Your task to perform on an android device: open app "Google Play services" (install if not already installed) Image 0: 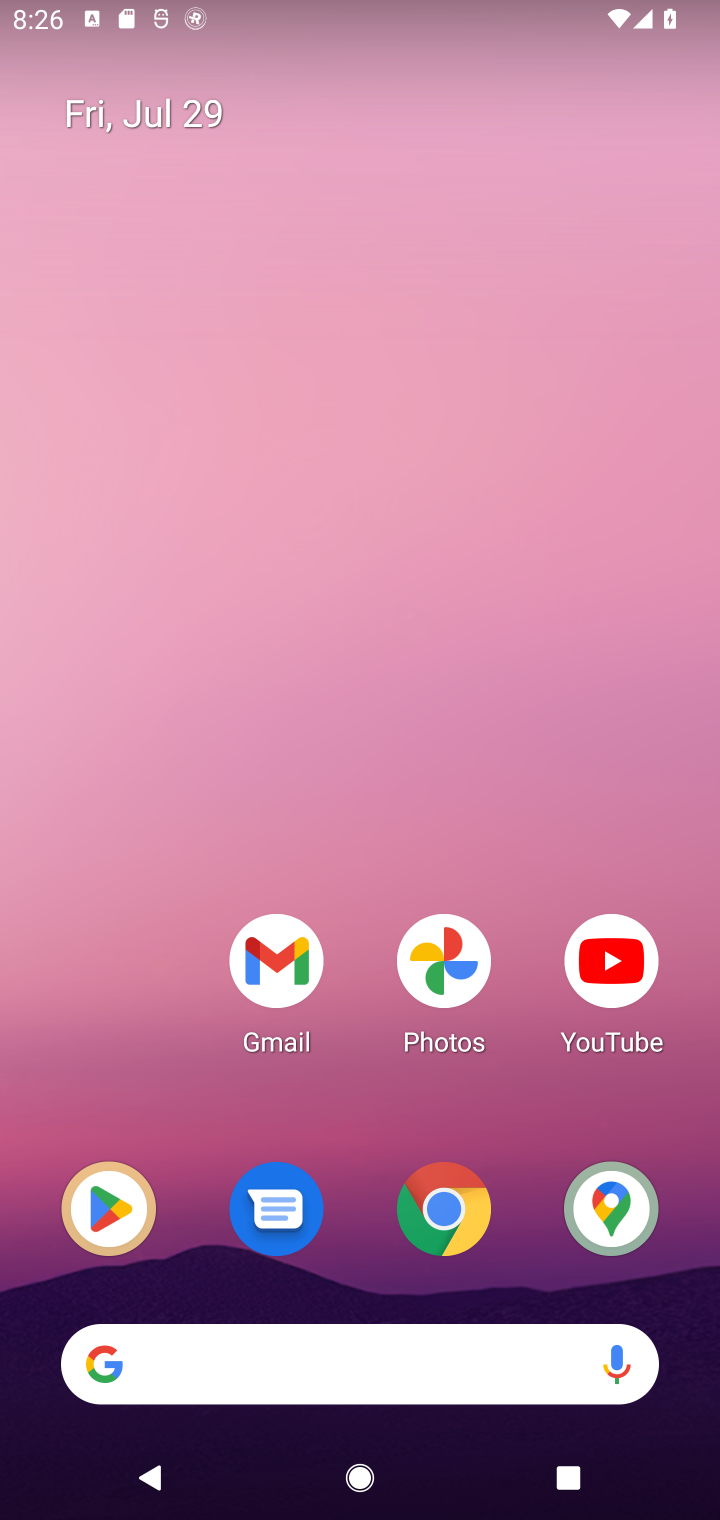
Step 0: click (97, 1256)
Your task to perform on an android device: open app "Google Play services" (install if not already installed) Image 1: 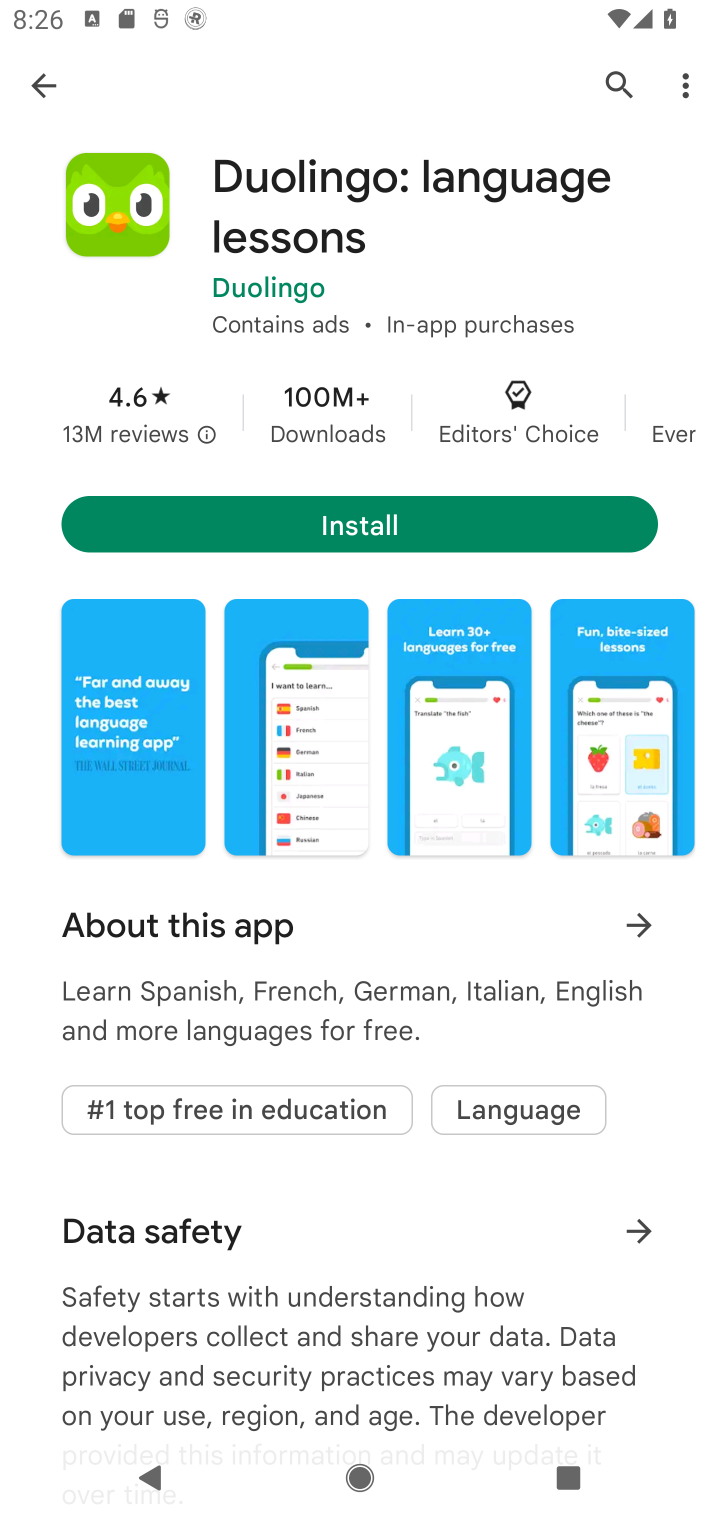
Step 1: click (622, 93)
Your task to perform on an android device: open app "Google Play services" (install if not already installed) Image 2: 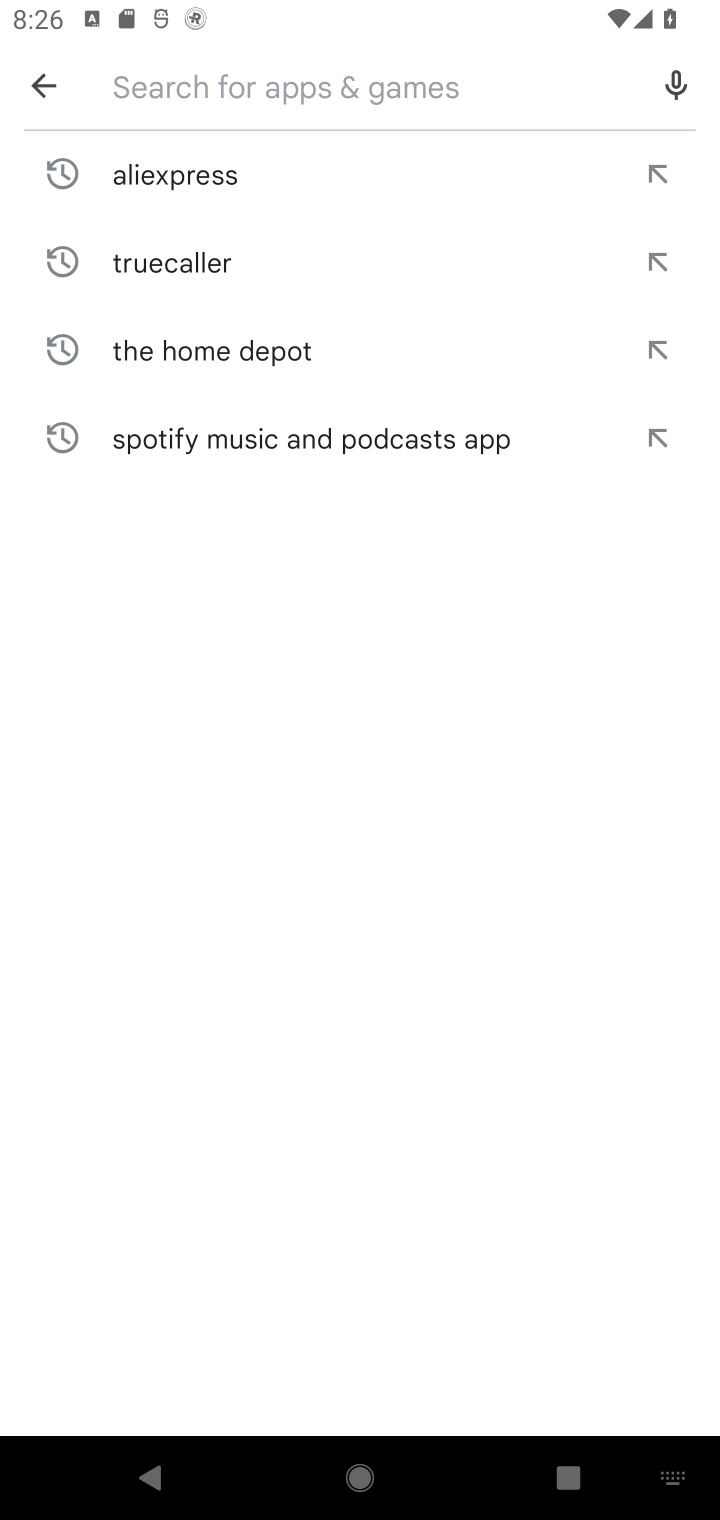
Step 2: click (369, 102)
Your task to perform on an android device: open app "Google Play services" (install if not already installed) Image 3: 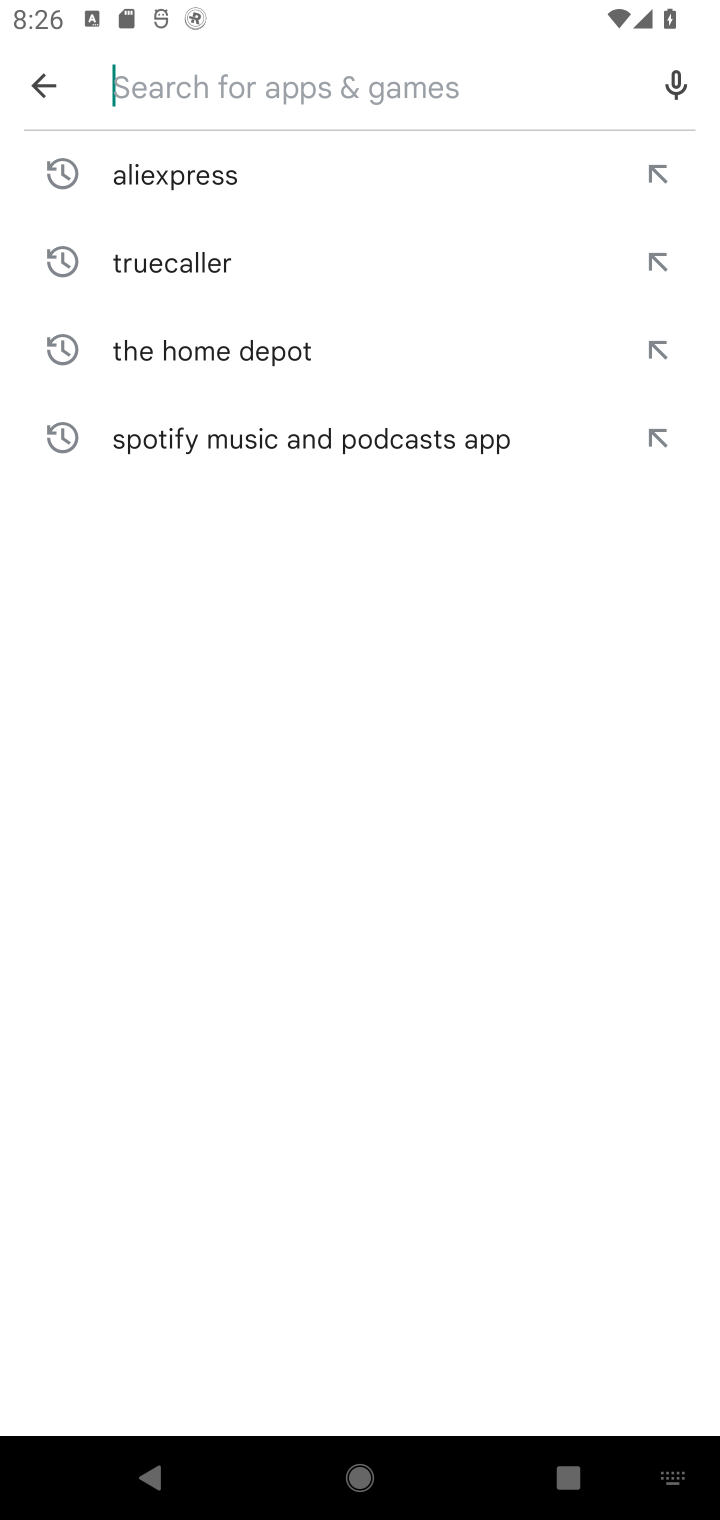
Step 3: type "Google Play services"
Your task to perform on an android device: open app "Google Play services" (install if not already installed) Image 4: 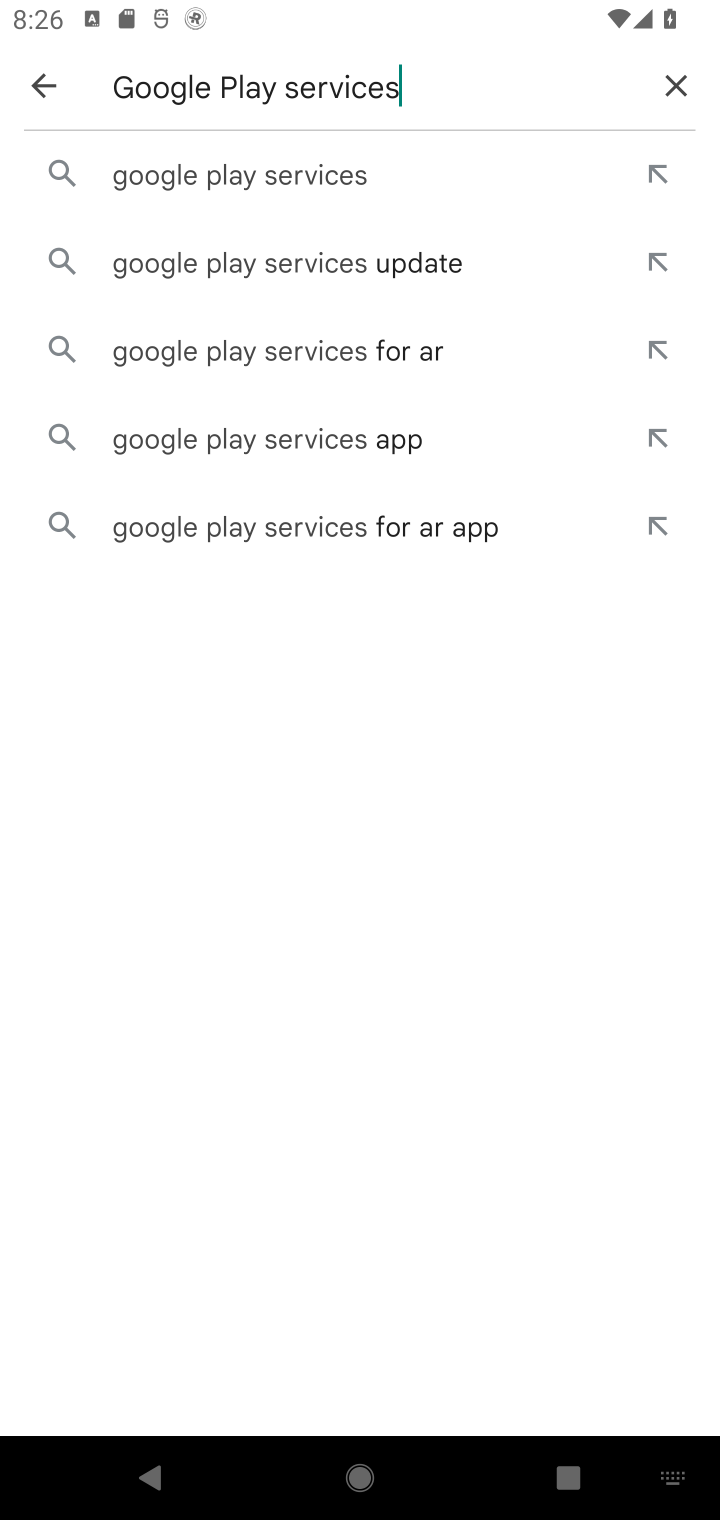
Step 4: click (218, 189)
Your task to perform on an android device: open app "Google Play services" (install if not already installed) Image 5: 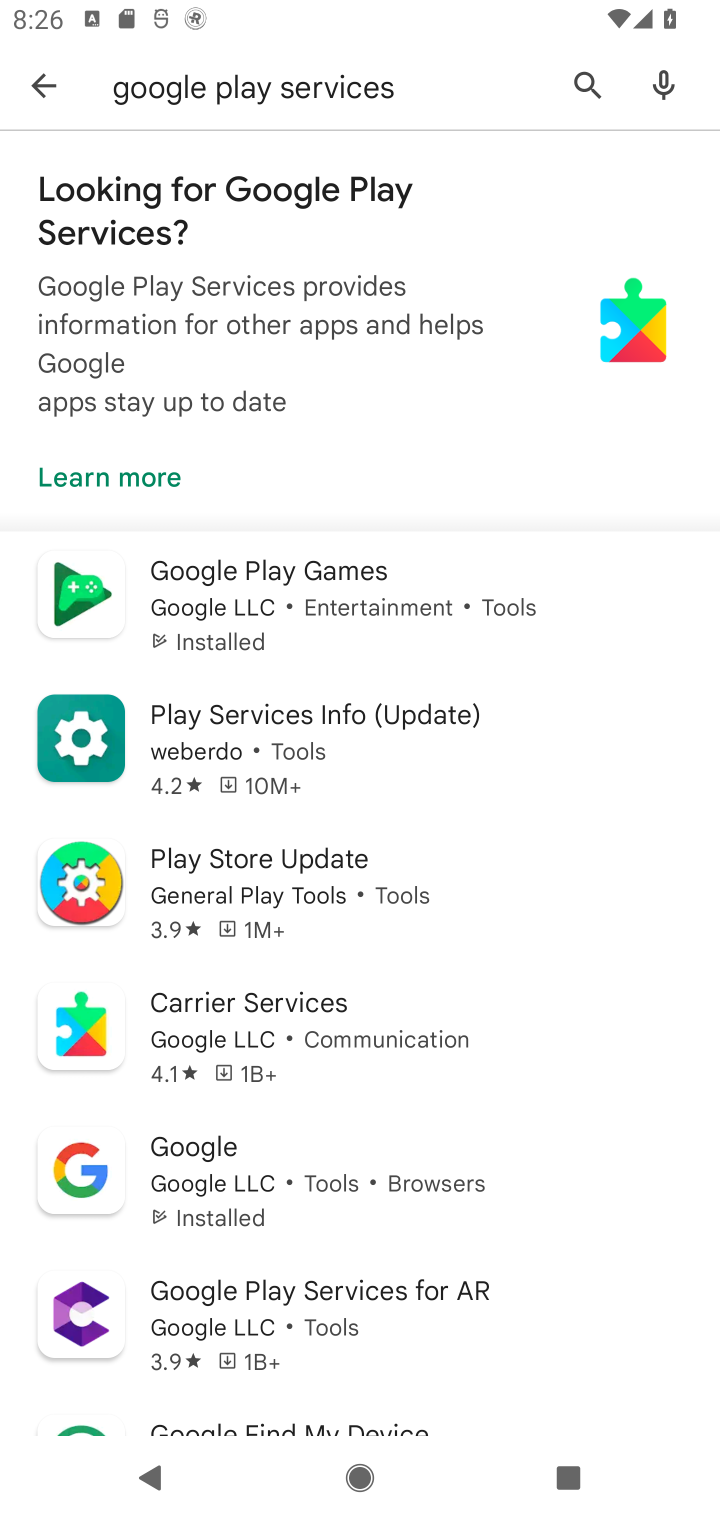
Step 5: click (254, 1311)
Your task to perform on an android device: open app "Google Play services" (install if not already installed) Image 6: 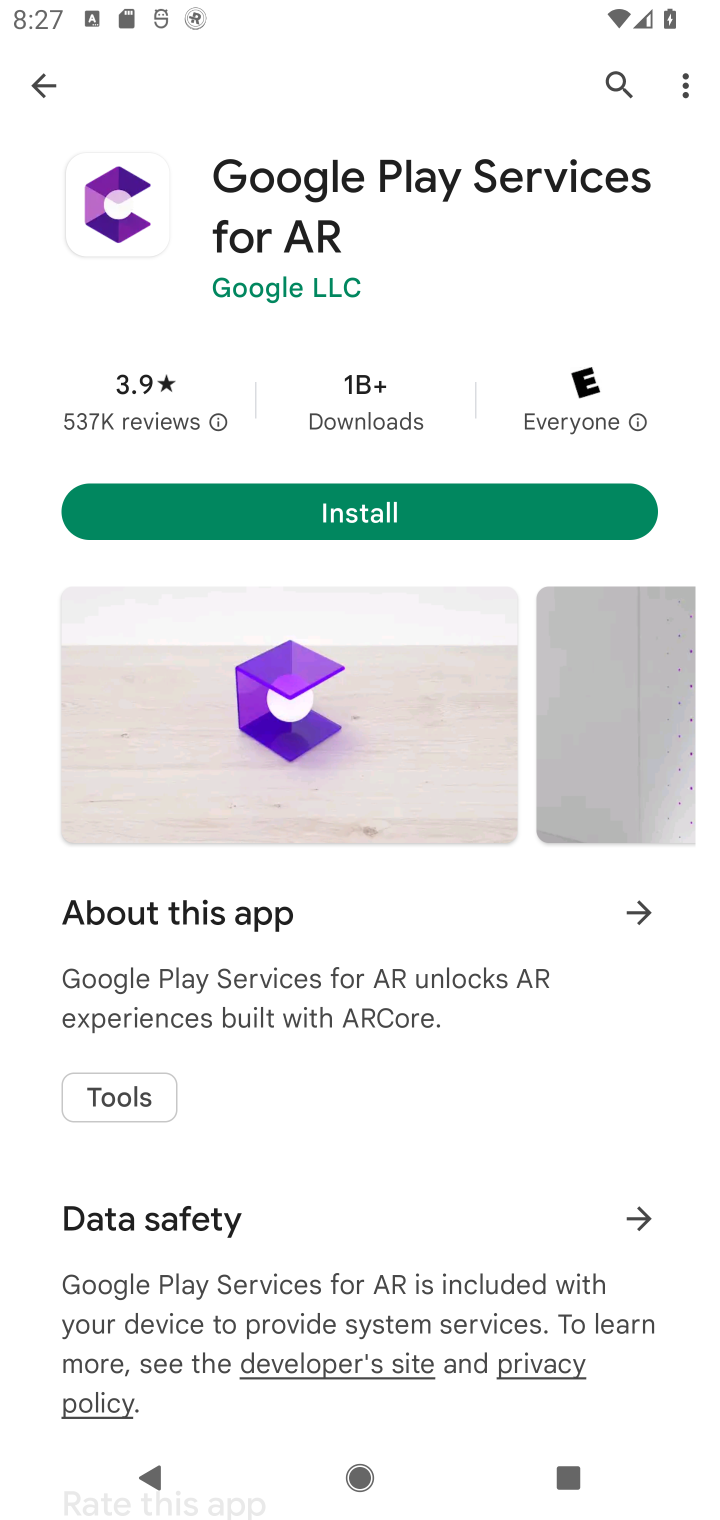
Step 6: click (326, 535)
Your task to perform on an android device: open app "Google Play services" (install if not already installed) Image 7: 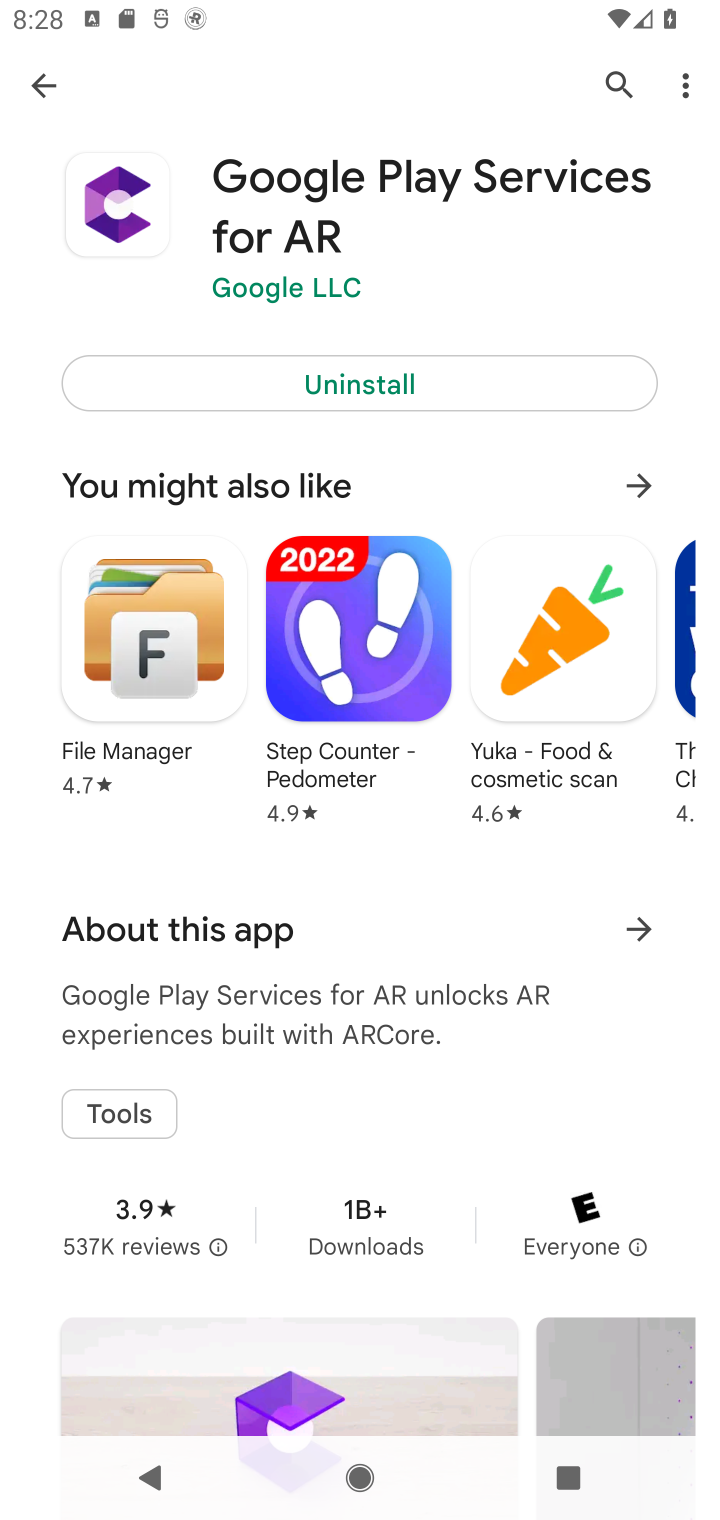
Step 7: click (129, 232)
Your task to perform on an android device: open app "Google Play services" (install if not already installed) Image 8: 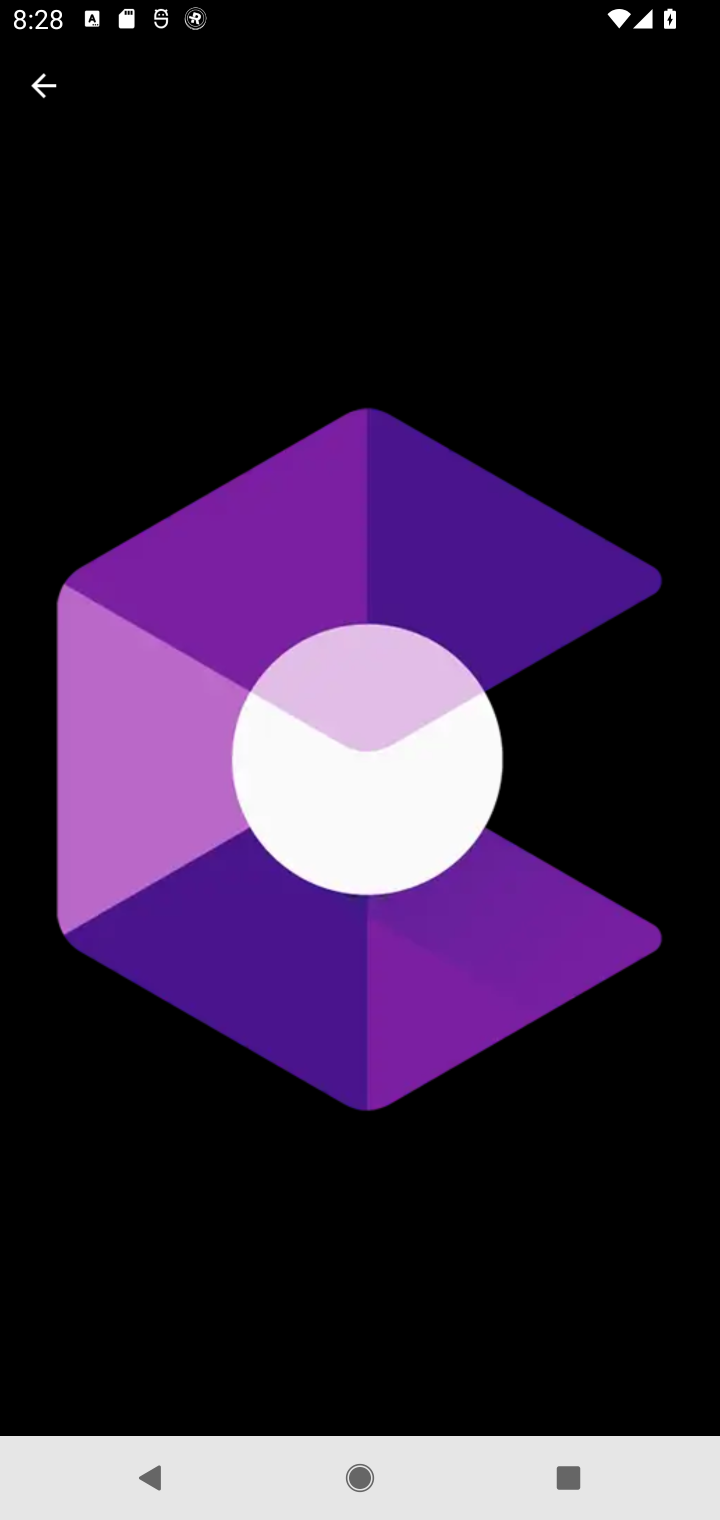
Step 8: click (46, 104)
Your task to perform on an android device: open app "Google Play services" (install if not already installed) Image 9: 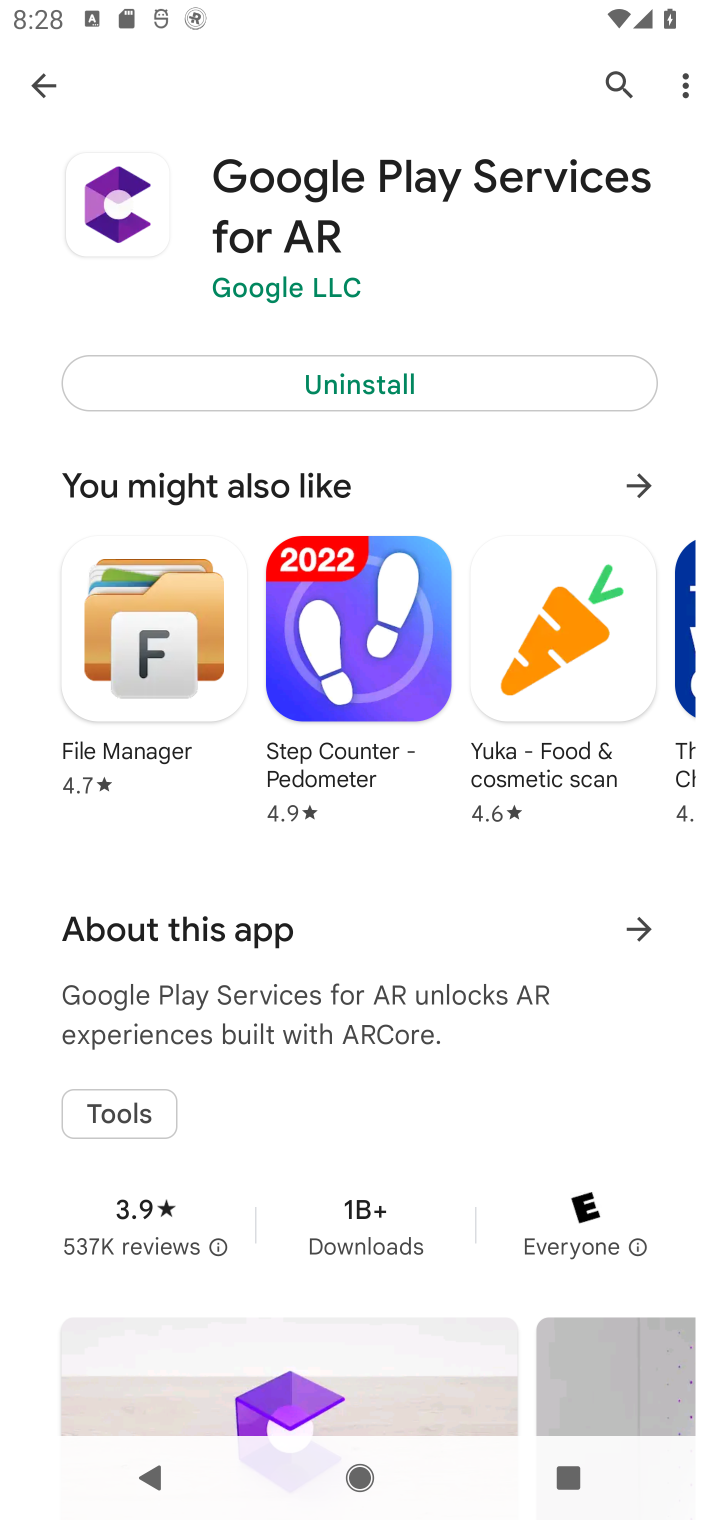
Step 9: click (307, 205)
Your task to perform on an android device: open app "Google Play services" (install if not already installed) Image 10: 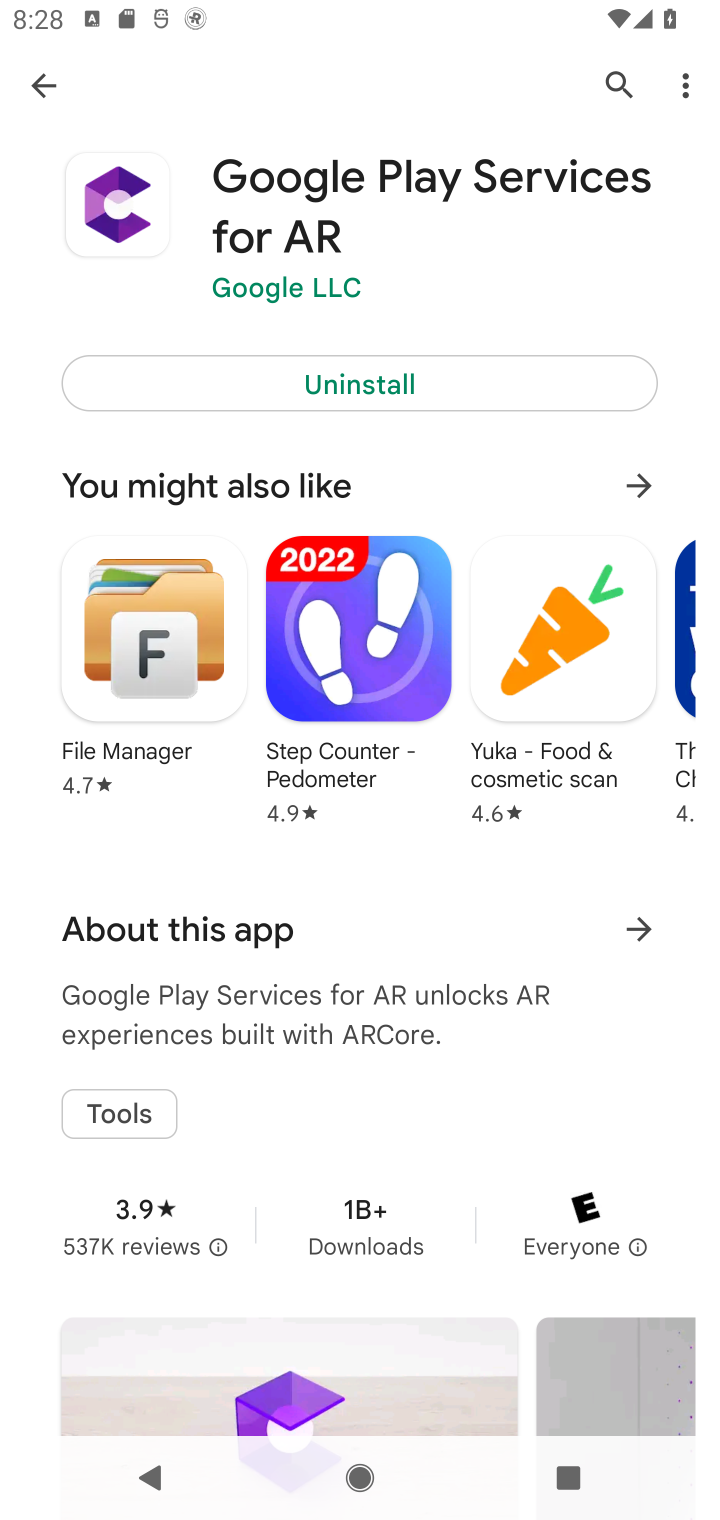
Step 10: click (350, 189)
Your task to perform on an android device: open app "Google Play services" (install if not already installed) Image 11: 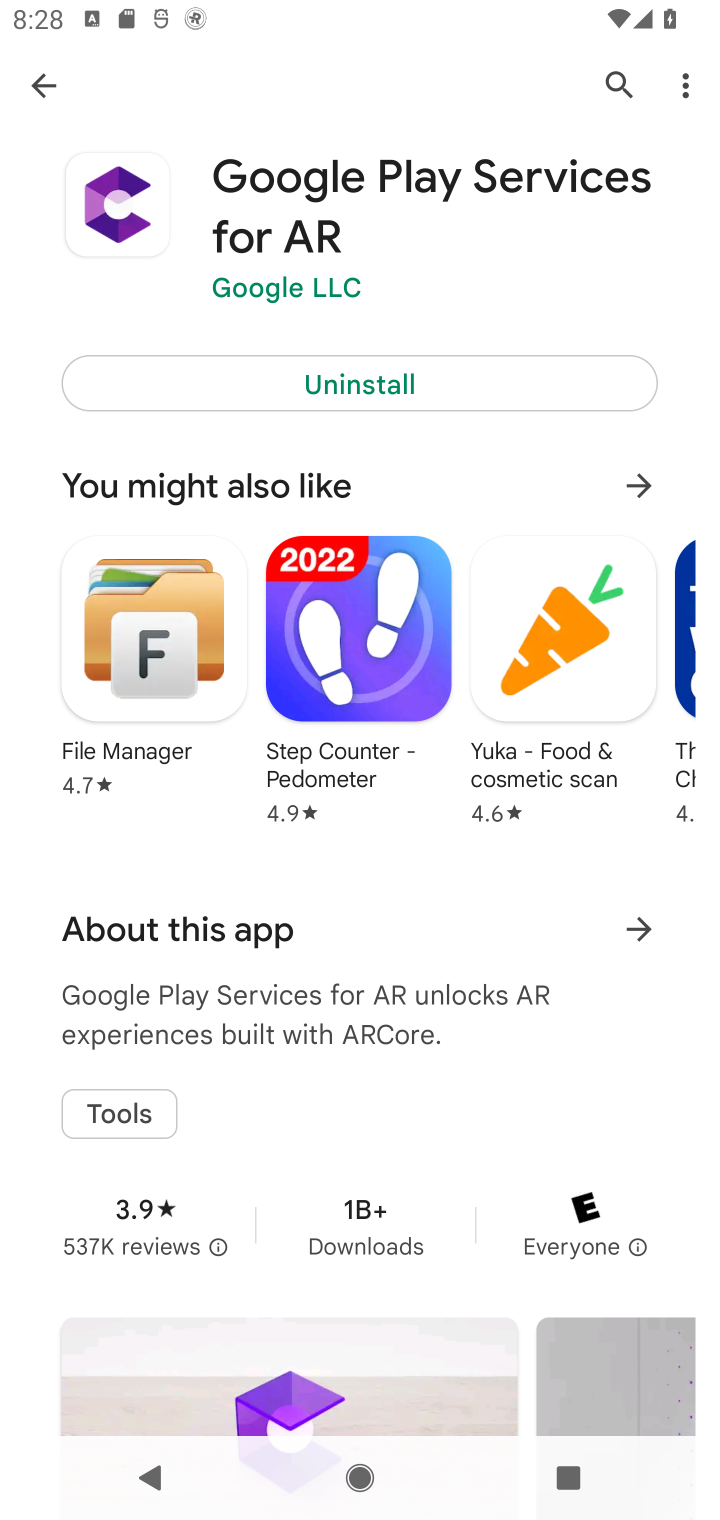
Step 11: click (316, 237)
Your task to perform on an android device: open app "Google Play services" (install if not already installed) Image 12: 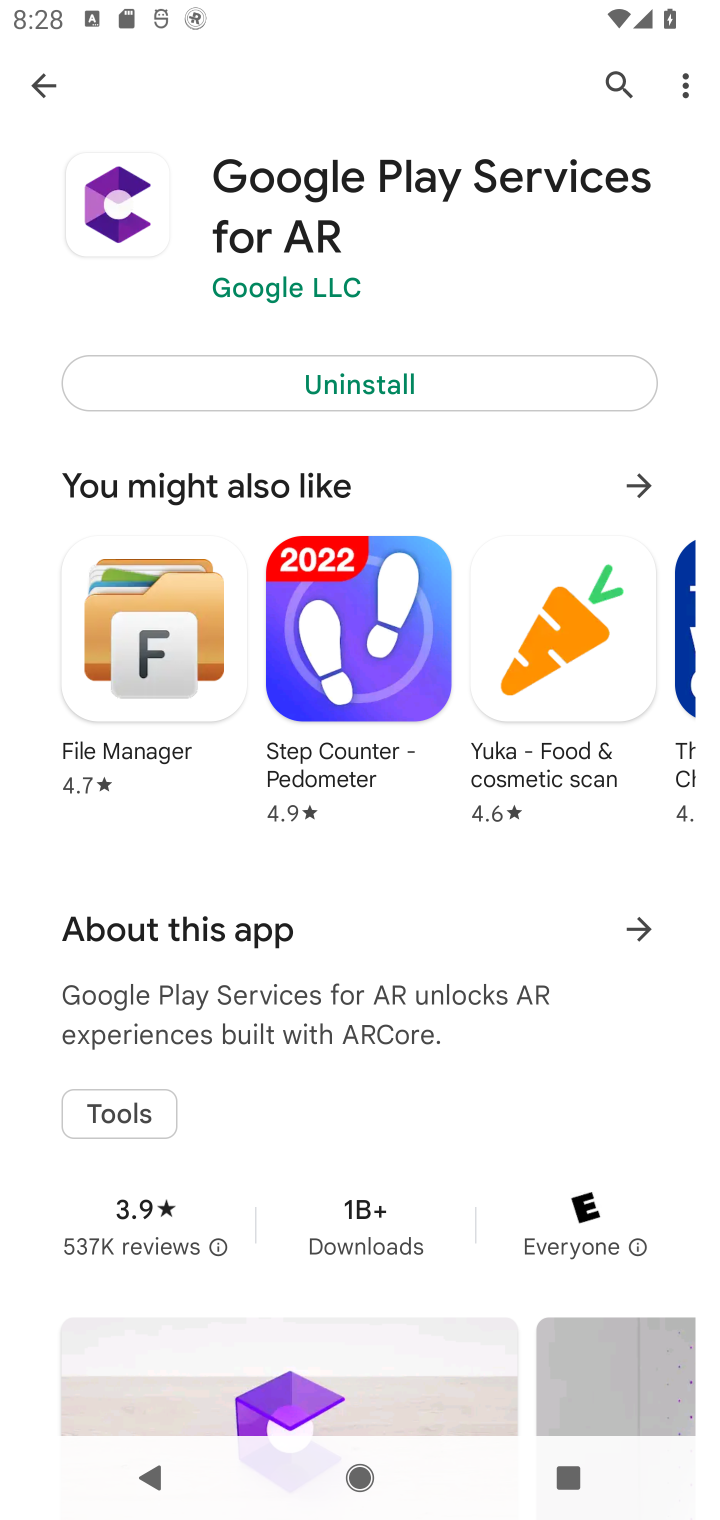
Step 12: click (557, 172)
Your task to perform on an android device: open app "Google Play services" (install if not already installed) Image 13: 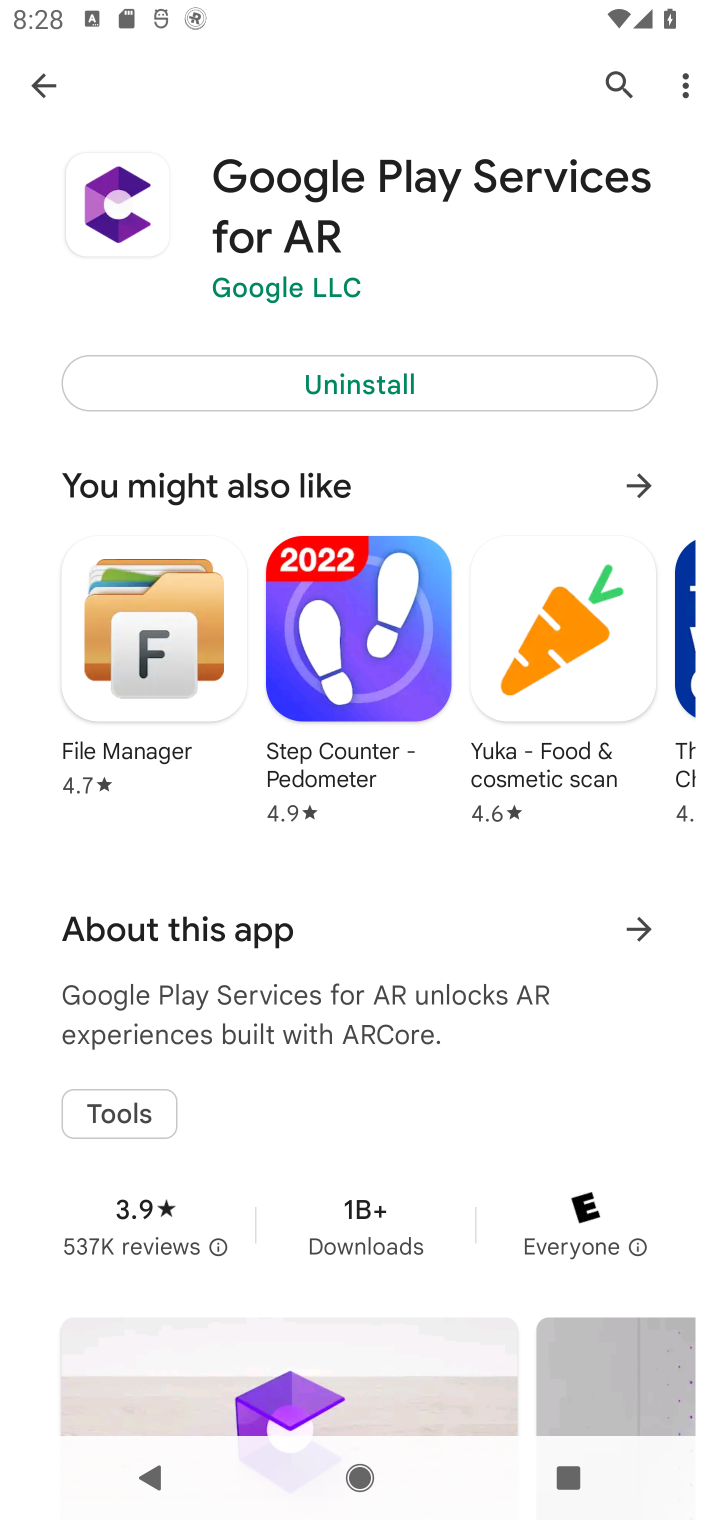
Step 13: click (290, 200)
Your task to perform on an android device: open app "Google Play services" (install if not already installed) Image 14: 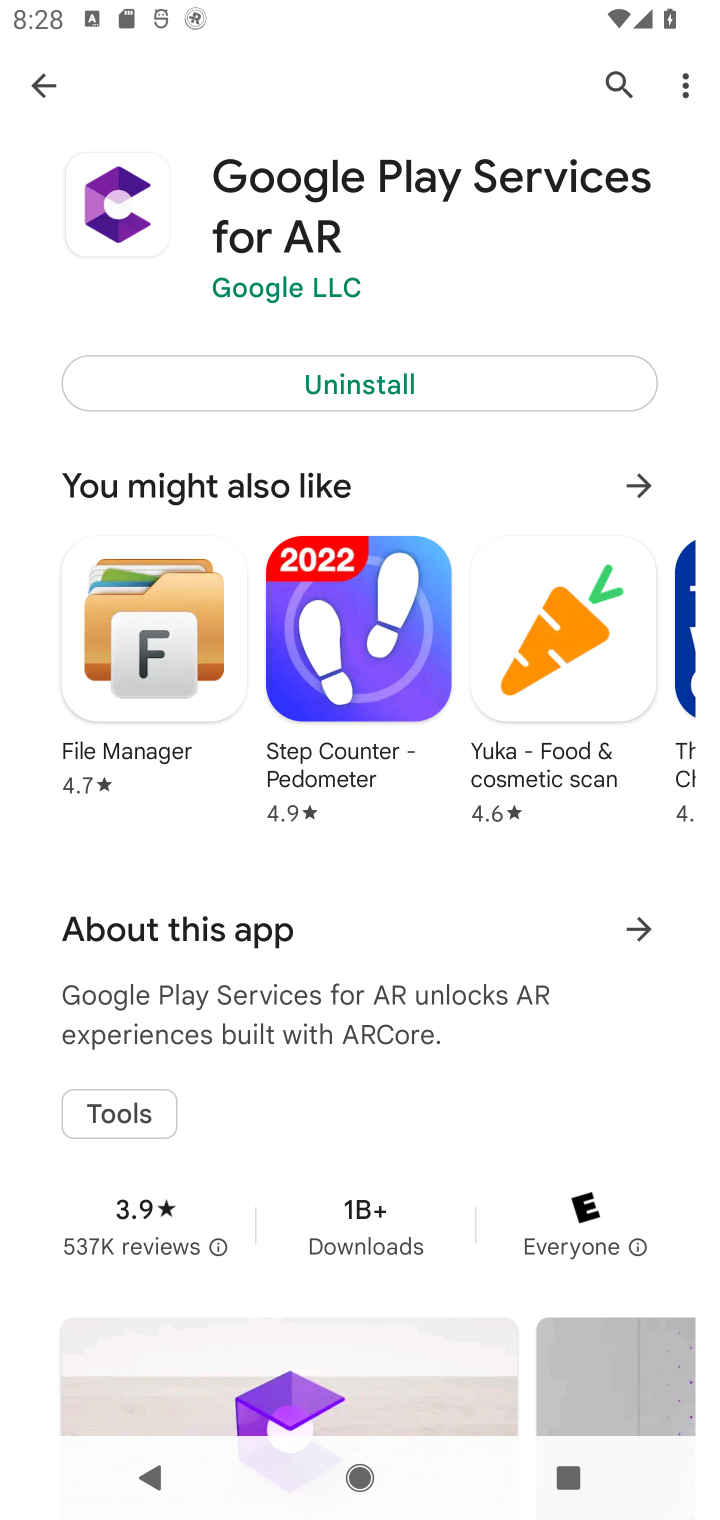
Step 14: click (233, 162)
Your task to perform on an android device: open app "Google Play services" (install if not already installed) Image 15: 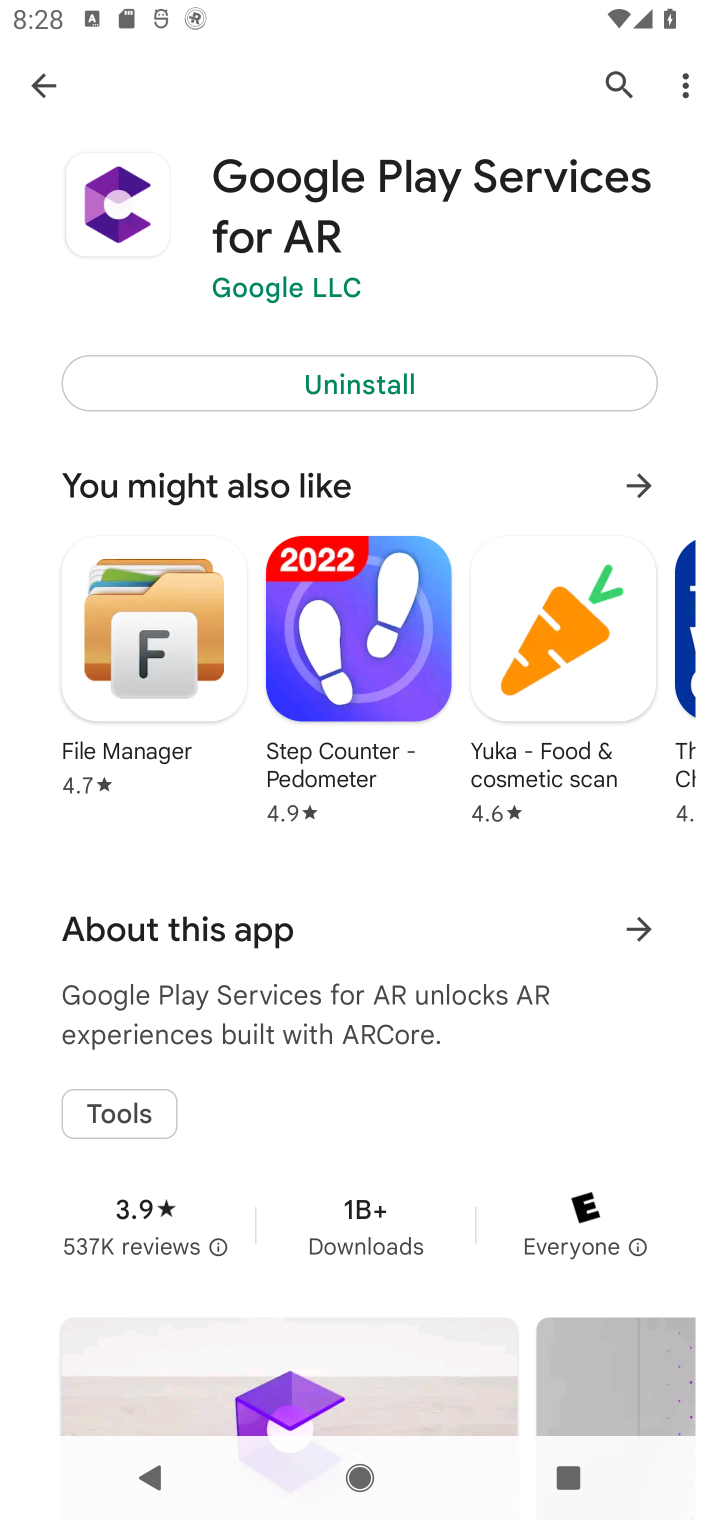
Step 15: press home button
Your task to perform on an android device: open app "Google Play services" (install if not already installed) Image 16: 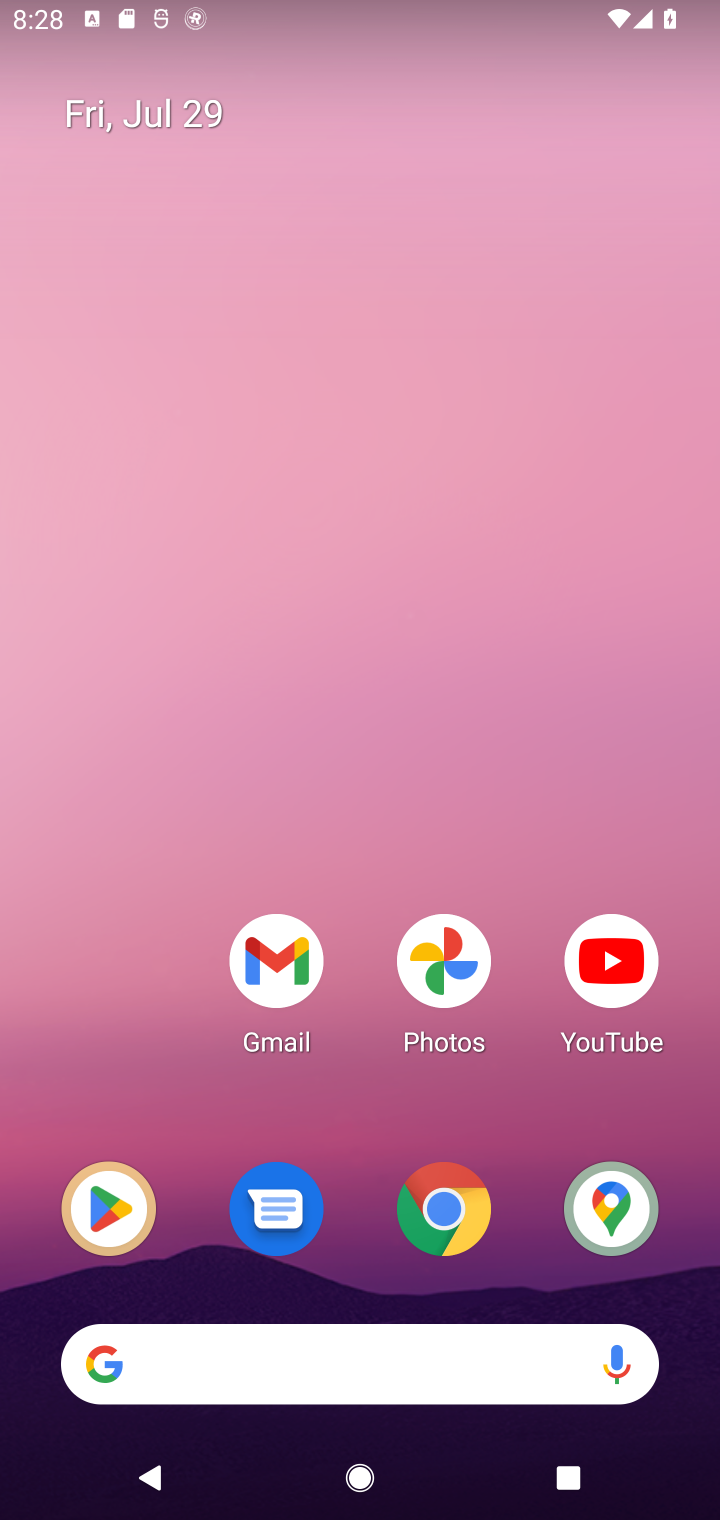
Step 16: drag from (450, 1109) to (65, 1062)
Your task to perform on an android device: open app "Google Play services" (install if not already installed) Image 17: 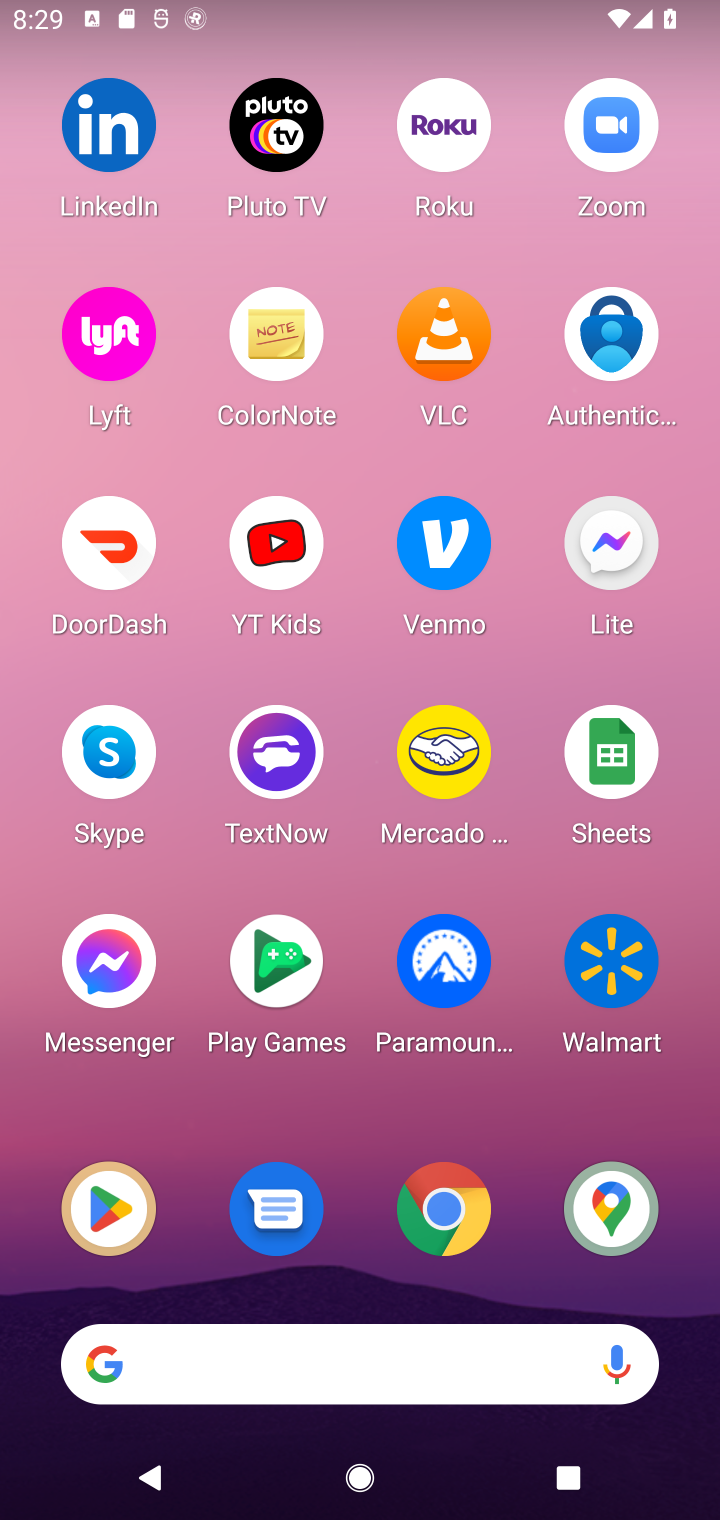
Step 17: drag from (681, 1079) to (662, 210)
Your task to perform on an android device: open app "Google Play services" (install if not already installed) Image 18: 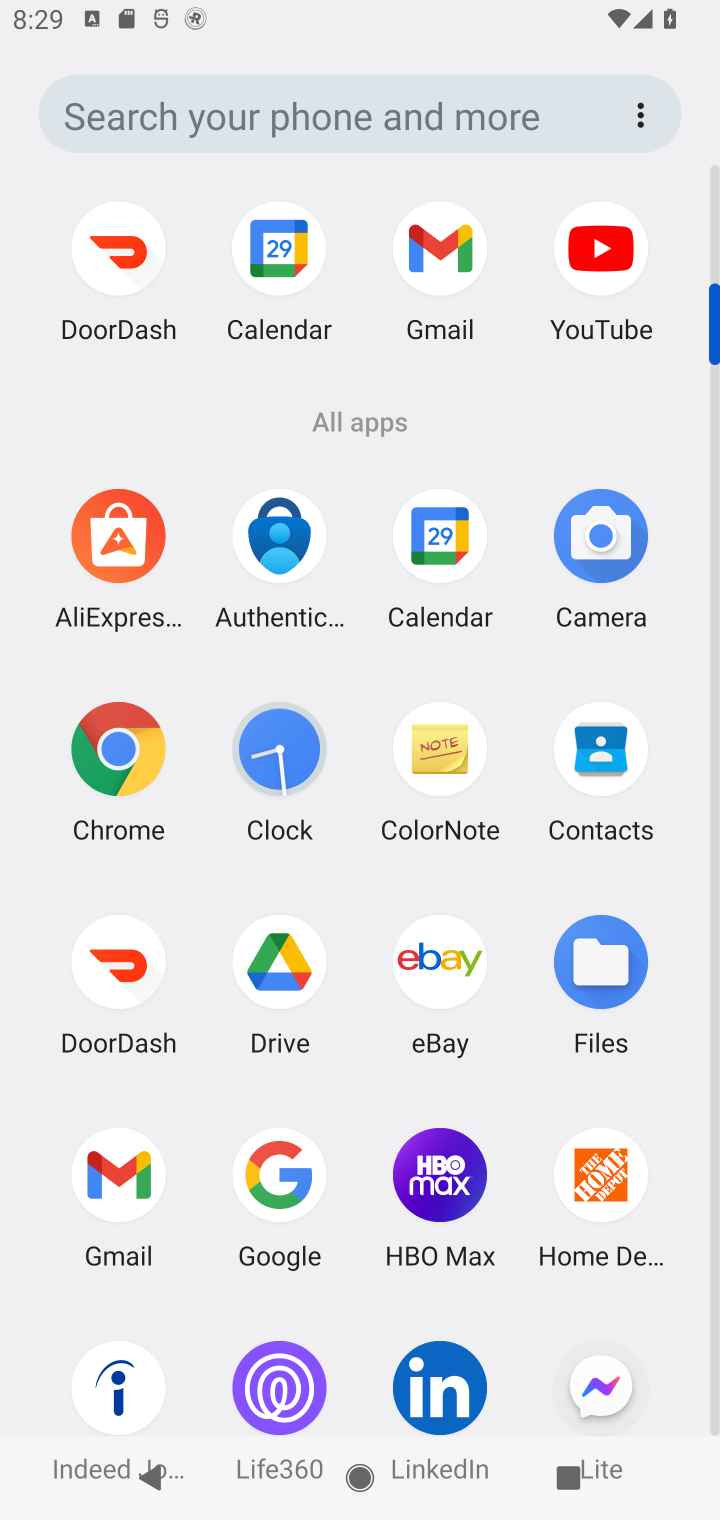
Step 18: click (716, 1231)
Your task to perform on an android device: open app "Google Play services" (install if not already installed) Image 19: 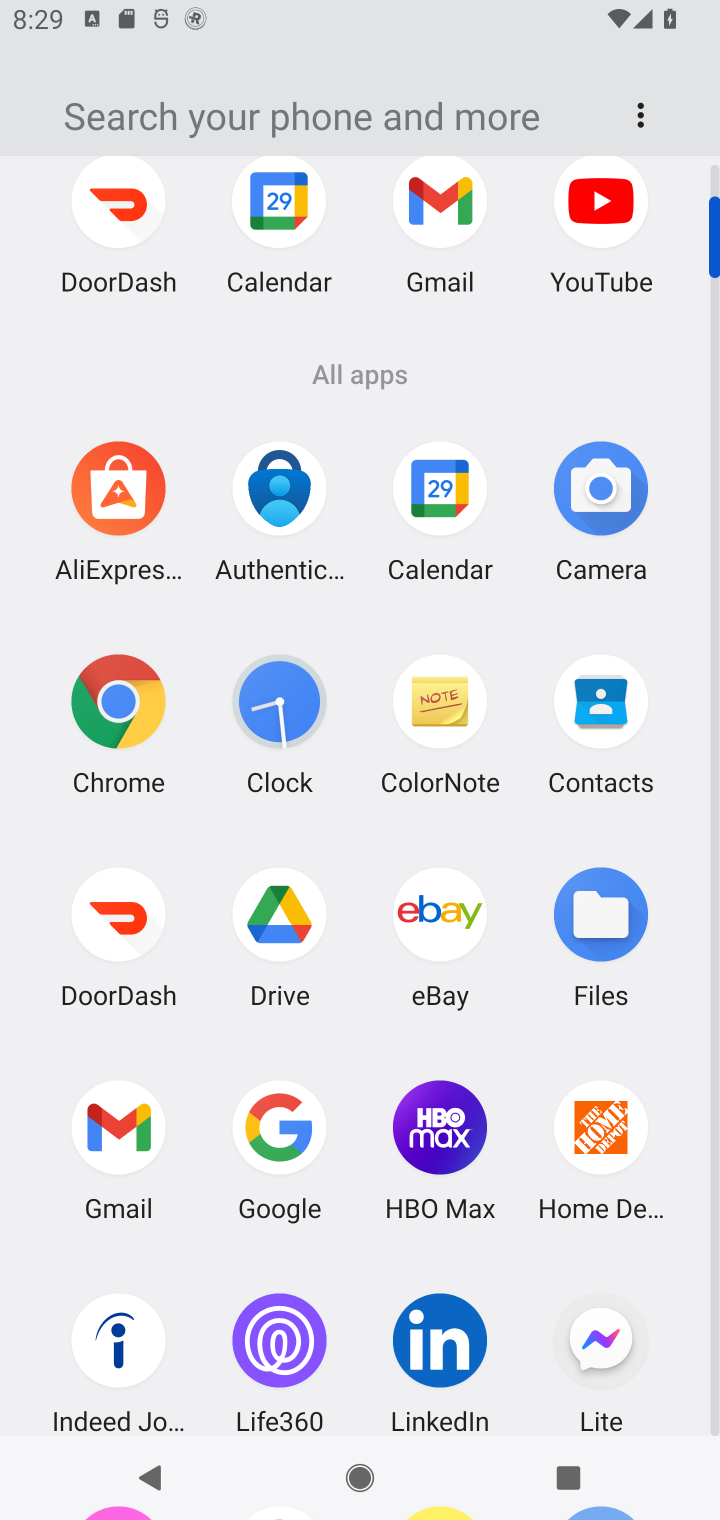
Step 19: task complete